Your task to perform on an android device: delete location history Image 0: 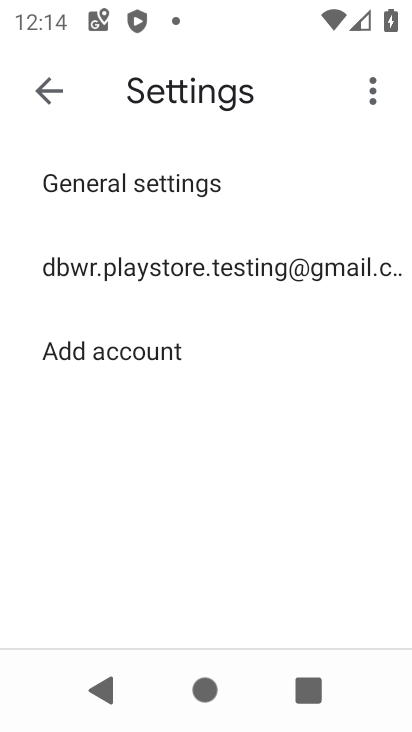
Step 0: press home button
Your task to perform on an android device: delete location history Image 1: 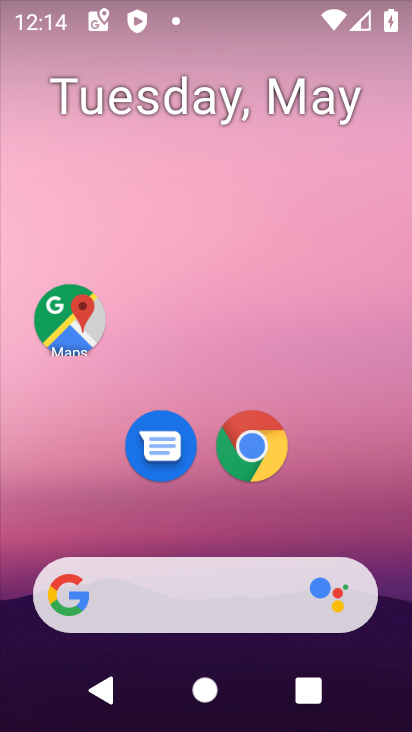
Step 1: drag from (361, 495) to (301, 8)
Your task to perform on an android device: delete location history Image 2: 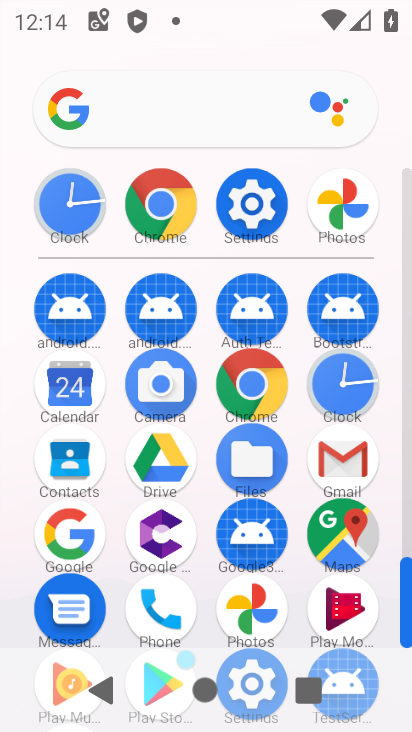
Step 2: click (355, 529)
Your task to perform on an android device: delete location history Image 3: 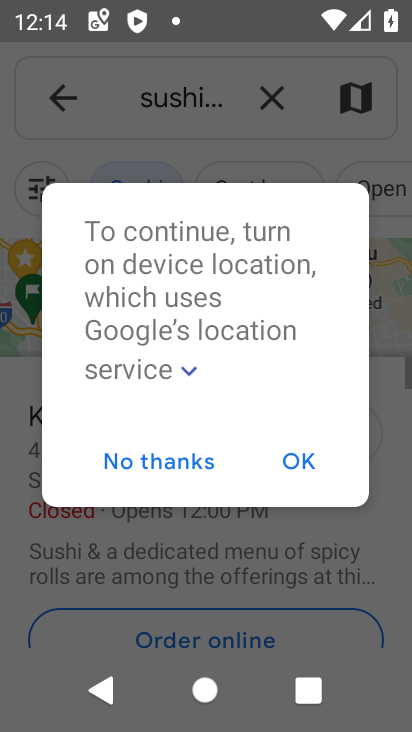
Step 3: click (195, 465)
Your task to perform on an android device: delete location history Image 4: 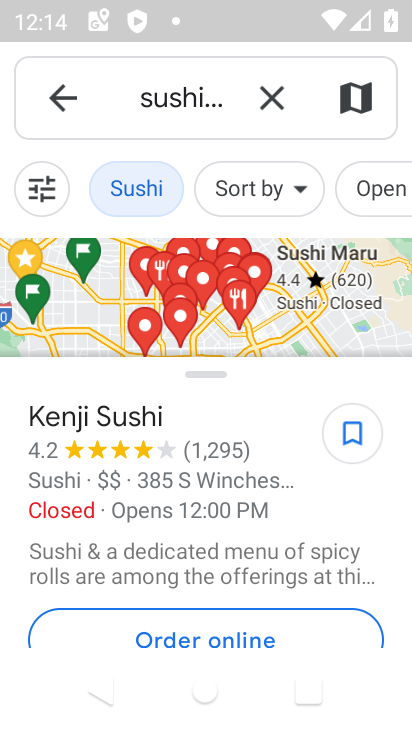
Step 4: click (49, 123)
Your task to perform on an android device: delete location history Image 5: 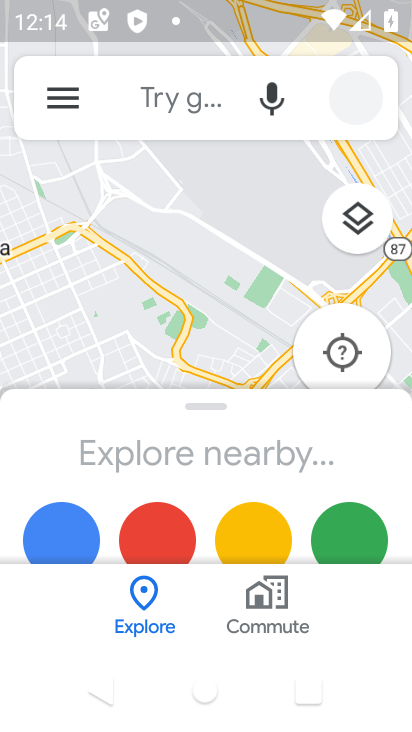
Step 5: click (51, 106)
Your task to perform on an android device: delete location history Image 6: 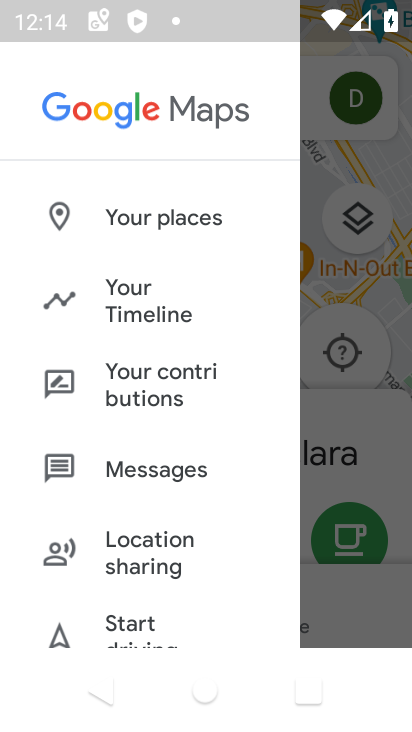
Step 6: drag from (128, 634) to (179, 218)
Your task to perform on an android device: delete location history Image 7: 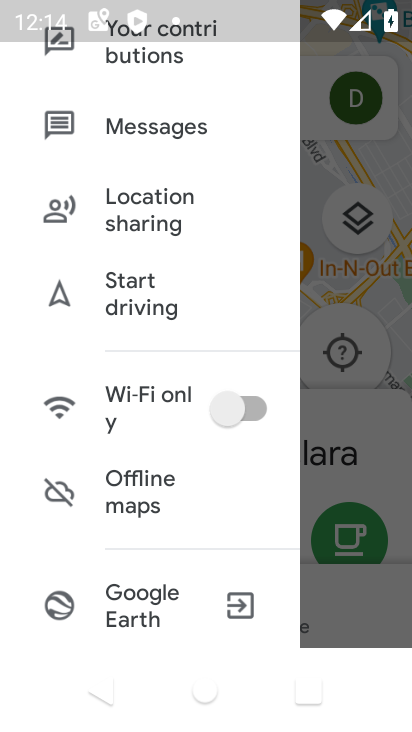
Step 7: drag from (135, 586) to (186, 177)
Your task to perform on an android device: delete location history Image 8: 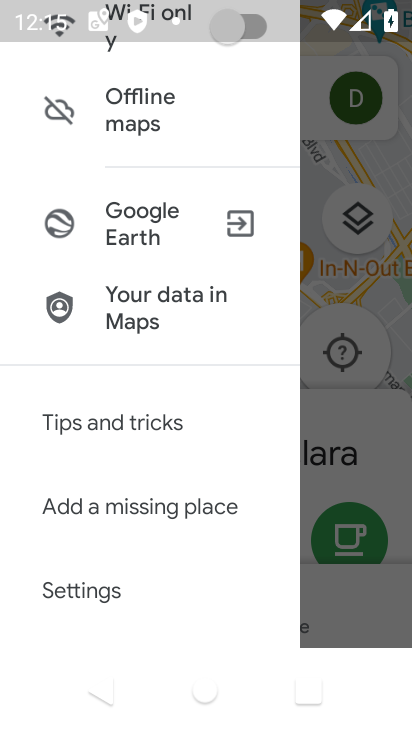
Step 8: click (78, 591)
Your task to perform on an android device: delete location history Image 9: 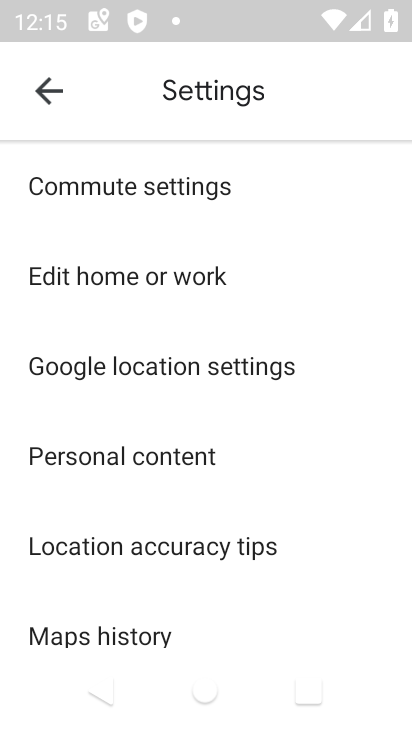
Step 9: click (61, 112)
Your task to perform on an android device: delete location history Image 10: 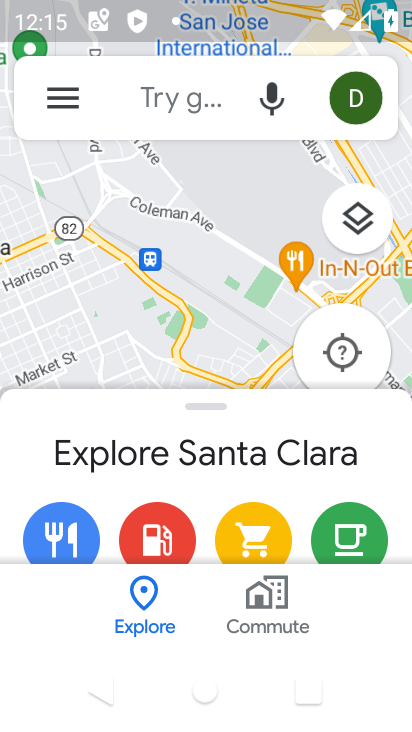
Step 10: click (61, 121)
Your task to perform on an android device: delete location history Image 11: 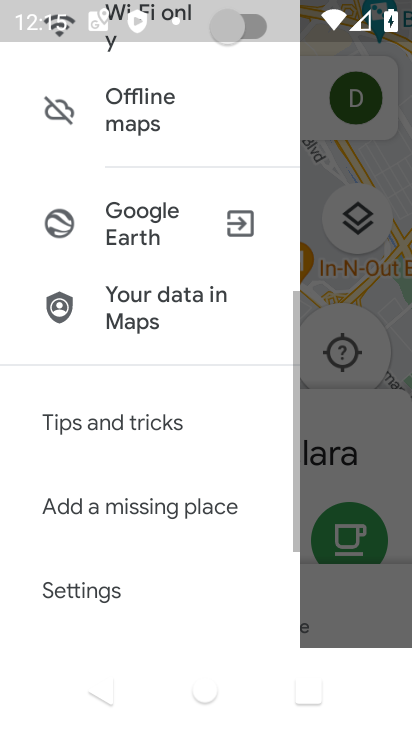
Step 11: drag from (126, 243) to (144, 693)
Your task to perform on an android device: delete location history Image 12: 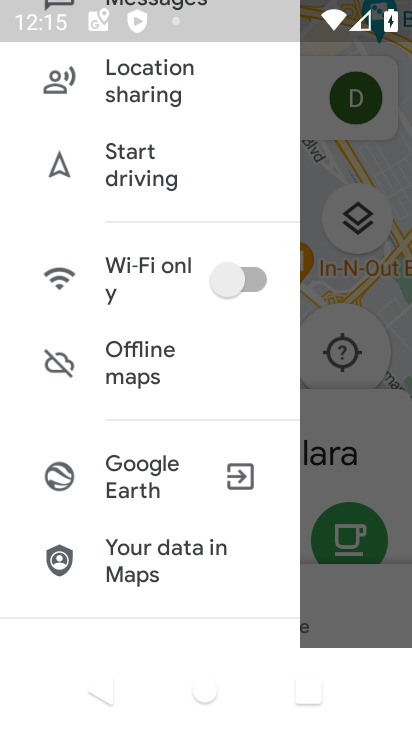
Step 12: drag from (112, 218) to (110, 642)
Your task to perform on an android device: delete location history Image 13: 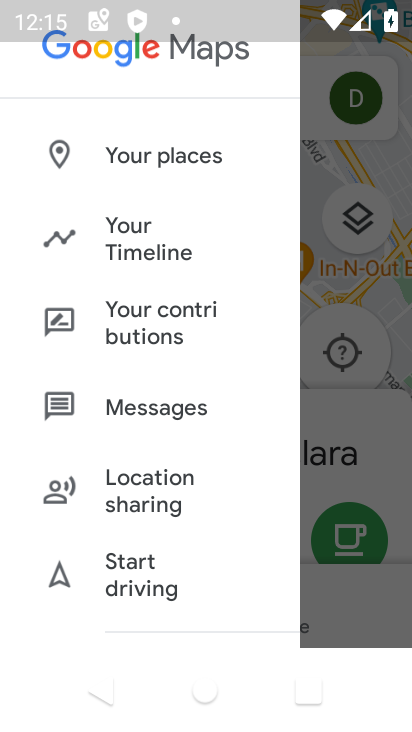
Step 13: click (139, 246)
Your task to perform on an android device: delete location history Image 14: 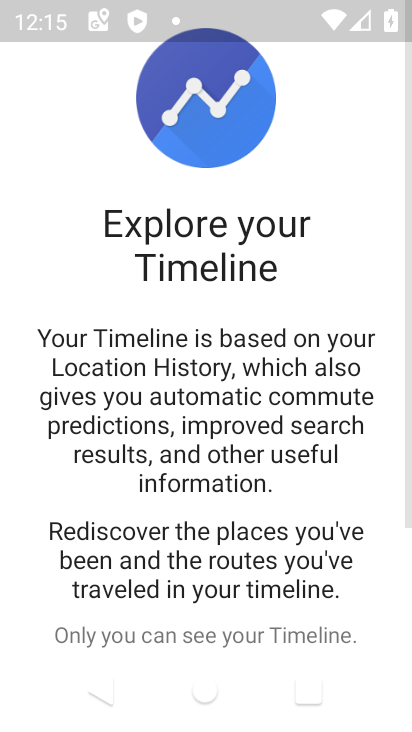
Step 14: drag from (179, 573) to (198, 197)
Your task to perform on an android device: delete location history Image 15: 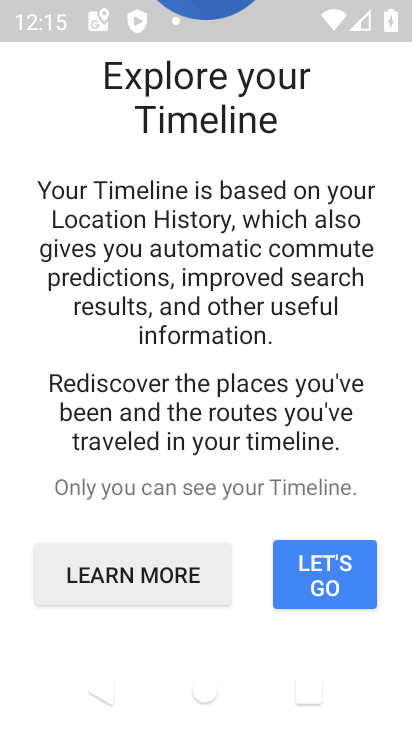
Step 15: drag from (160, 459) to (207, 125)
Your task to perform on an android device: delete location history Image 16: 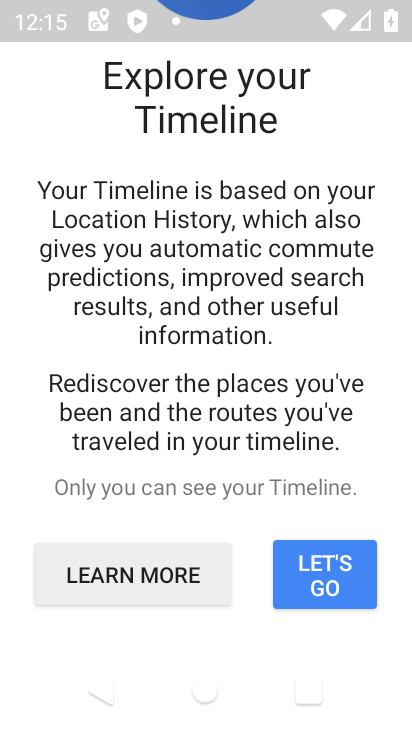
Step 16: click (290, 588)
Your task to perform on an android device: delete location history Image 17: 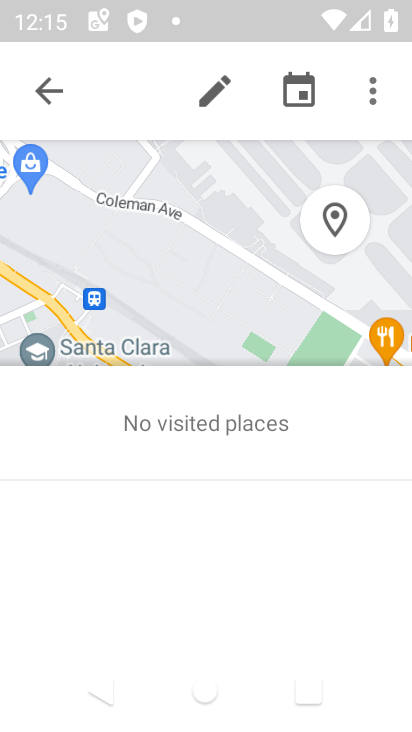
Step 17: click (361, 87)
Your task to perform on an android device: delete location history Image 18: 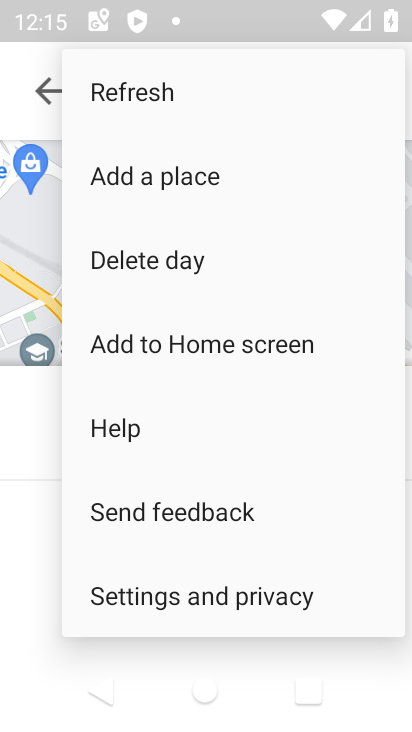
Step 18: click (186, 589)
Your task to perform on an android device: delete location history Image 19: 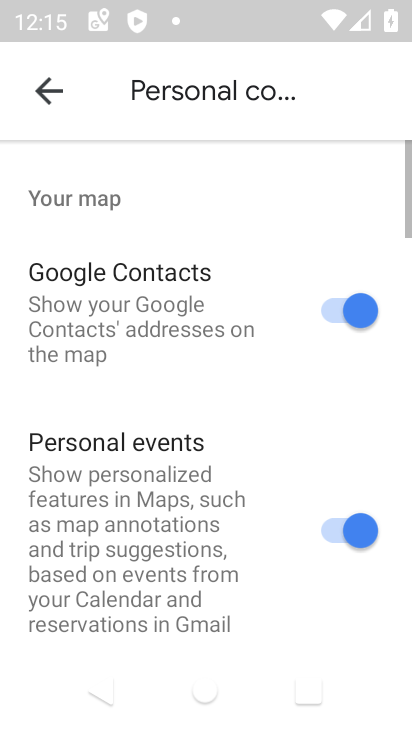
Step 19: drag from (188, 583) to (267, 202)
Your task to perform on an android device: delete location history Image 20: 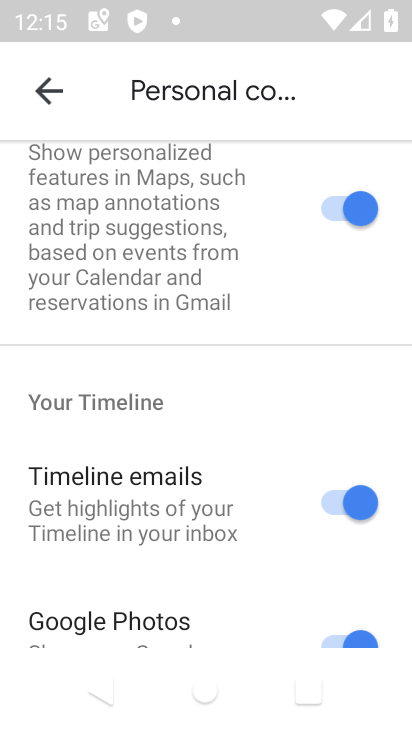
Step 20: drag from (189, 570) to (267, 142)
Your task to perform on an android device: delete location history Image 21: 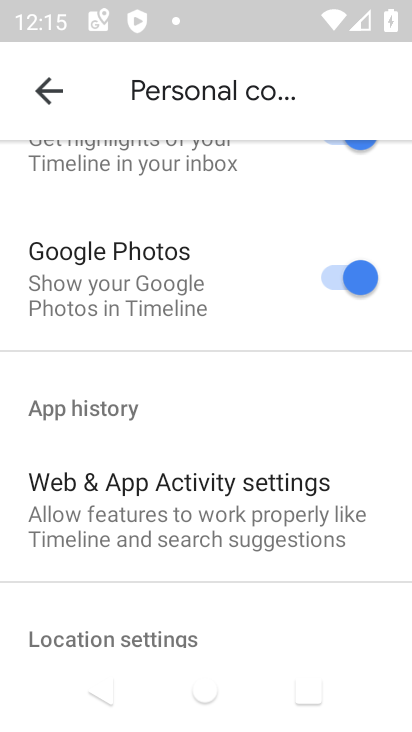
Step 21: drag from (180, 534) to (277, 77)
Your task to perform on an android device: delete location history Image 22: 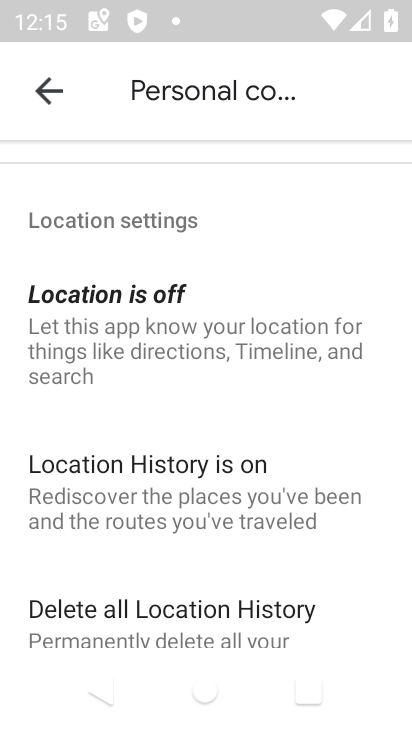
Step 22: drag from (154, 507) to (183, 284)
Your task to perform on an android device: delete location history Image 23: 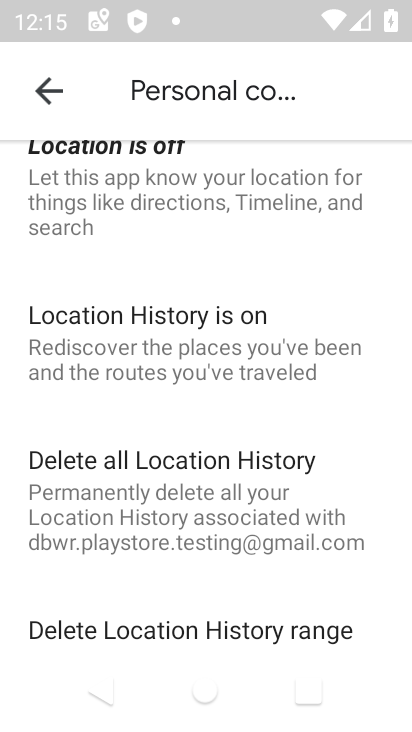
Step 23: click (121, 487)
Your task to perform on an android device: delete location history Image 24: 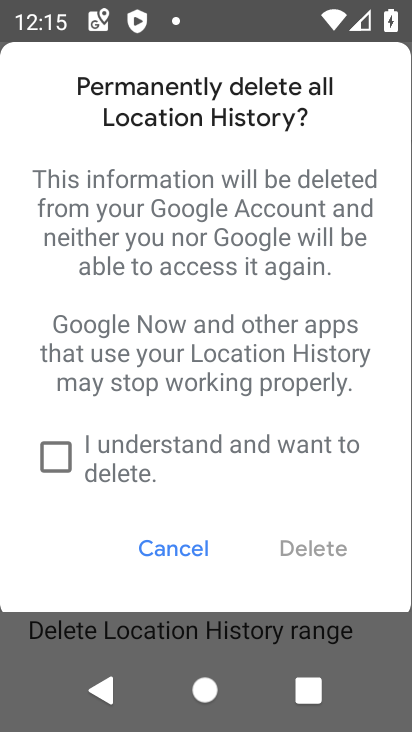
Step 24: click (68, 453)
Your task to perform on an android device: delete location history Image 25: 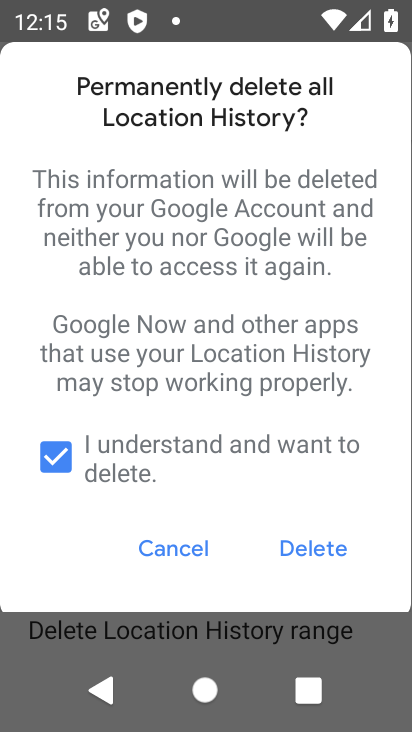
Step 25: click (310, 553)
Your task to perform on an android device: delete location history Image 26: 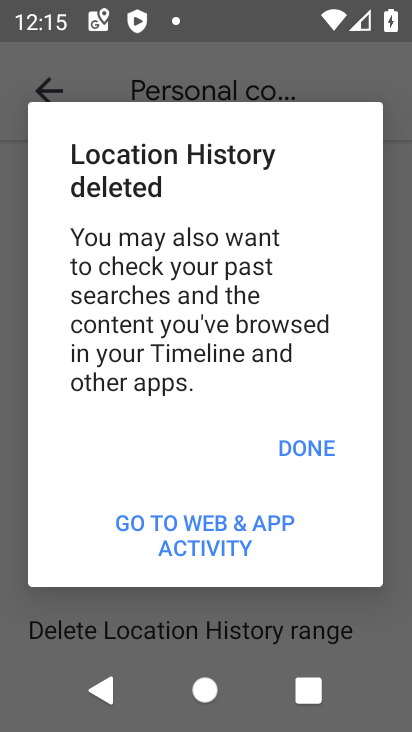
Step 26: task complete